Your task to perform on an android device: Open the phone app and click the voicemail tab. Image 0: 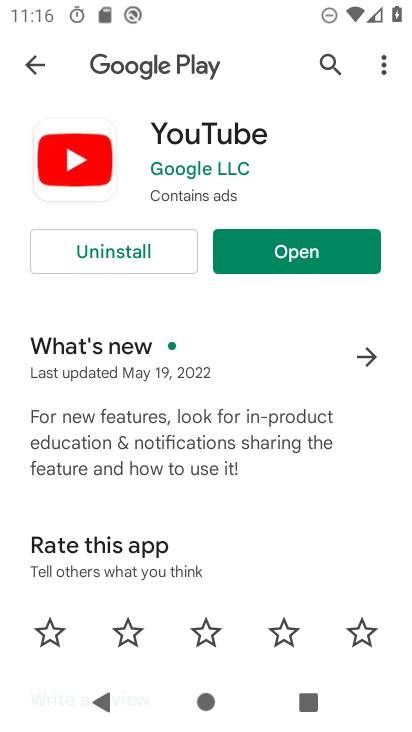
Step 0: press home button
Your task to perform on an android device: Open the phone app and click the voicemail tab. Image 1: 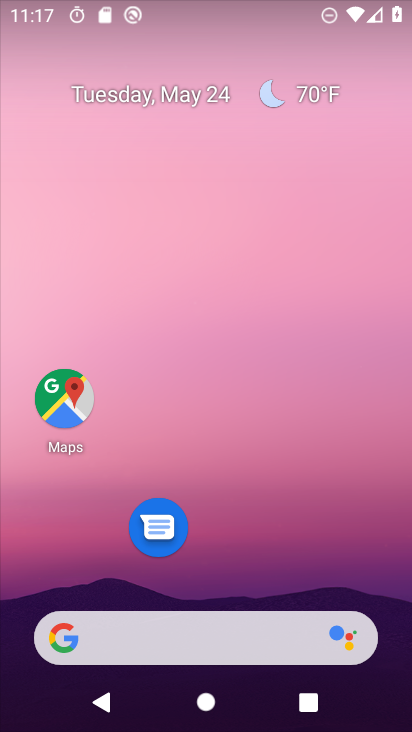
Step 1: drag from (232, 562) to (213, 147)
Your task to perform on an android device: Open the phone app and click the voicemail tab. Image 2: 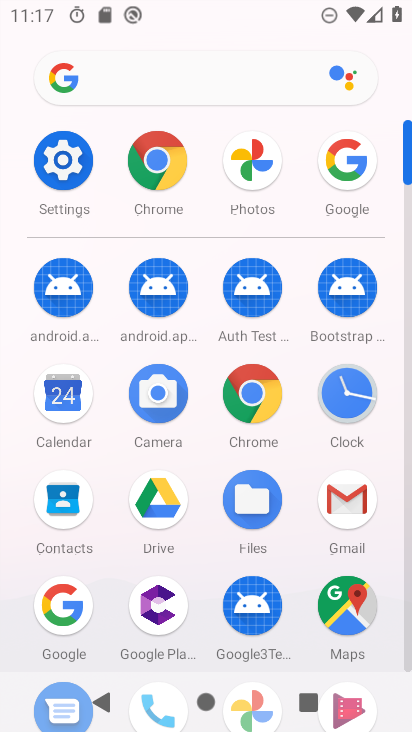
Step 2: drag from (198, 545) to (191, 396)
Your task to perform on an android device: Open the phone app and click the voicemail tab. Image 3: 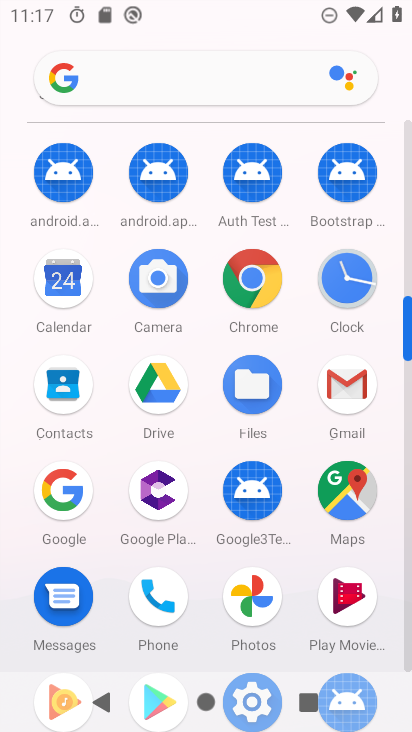
Step 3: click (166, 589)
Your task to perform on an android device: Open the phone app and click the voicemail tab. Image 4: 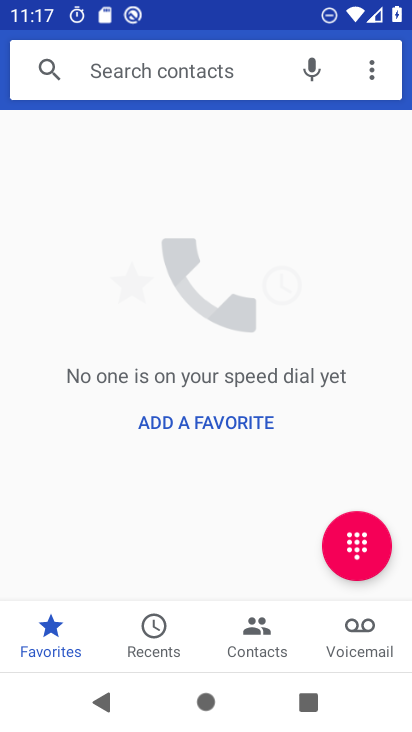
Step 4: click (355, 630)
Your task to perform on an android device: Open the phone app and click the voicemail tab. Image 5: 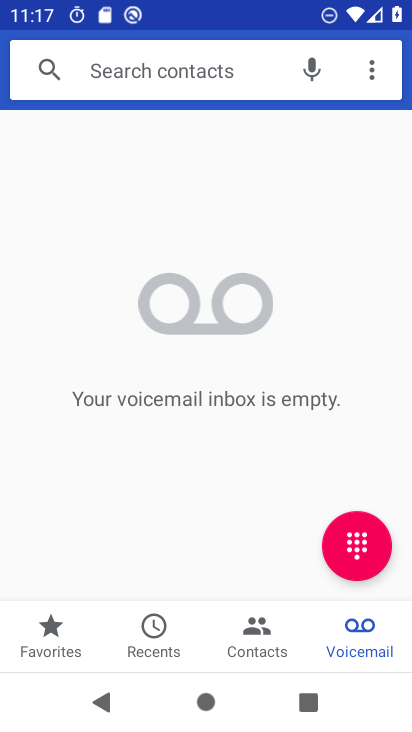
Step 5: task complete